Your task to perform on an android device: set the timer Image 0: 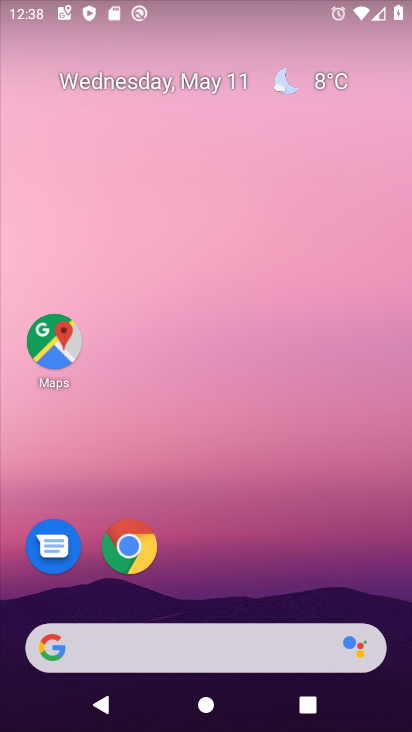
Step 0: drag from (159, 624) to (313, 249)
Your task to perform on an android device: set the timer Image 1: 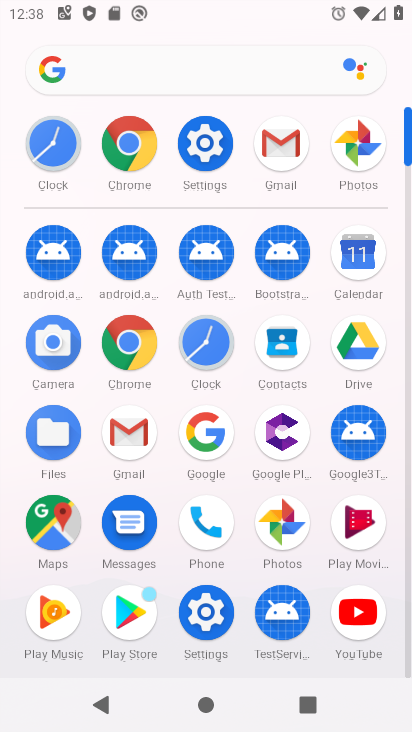
Step 1: click (62, 148)
Your task to perform on an android device: set the timer Image 2: 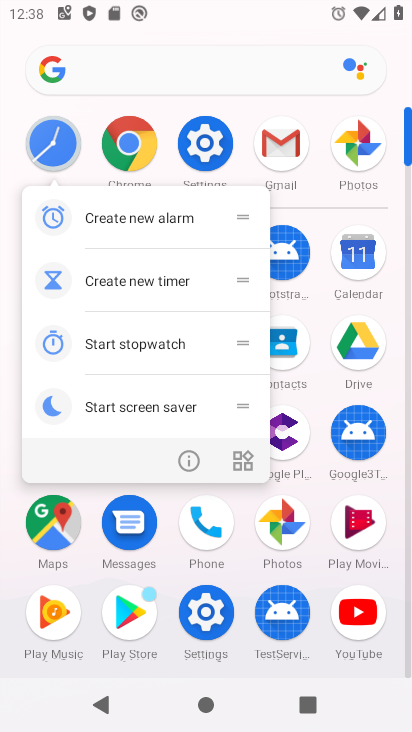
Step 2: click (64, 148)
Your task to perform on an android device: set the timer Image 3: 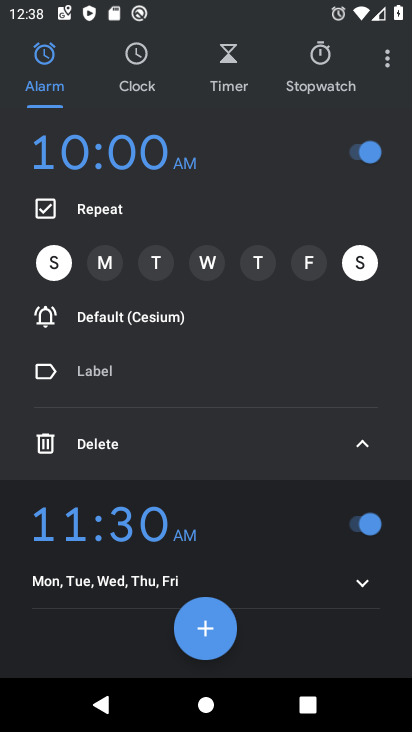
Step 3: click (240, 83)
Your task to perform on an android device: set the timer Image 4: 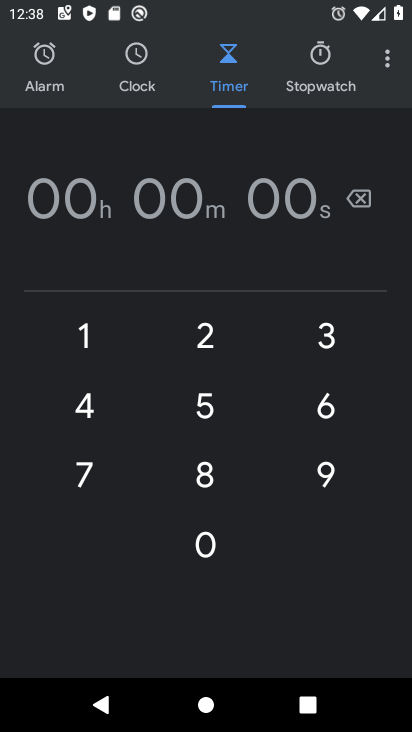
Step 4: click (93, 403)
Your task to perform on an android device: set the timer Image 5: 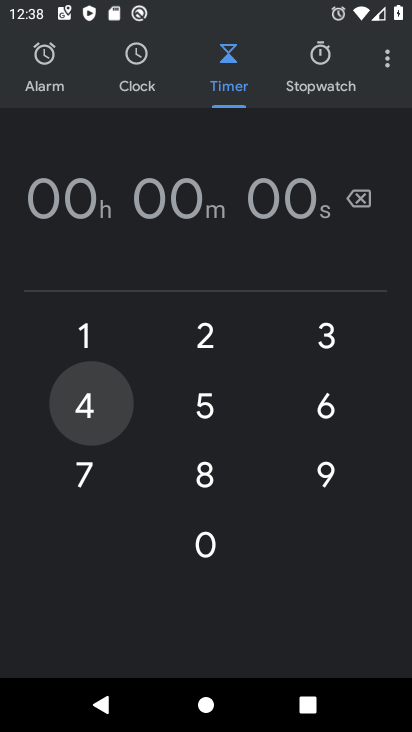
Step 5: click (95, 402)
Your task to perform on an android device: set the timer Image 6: 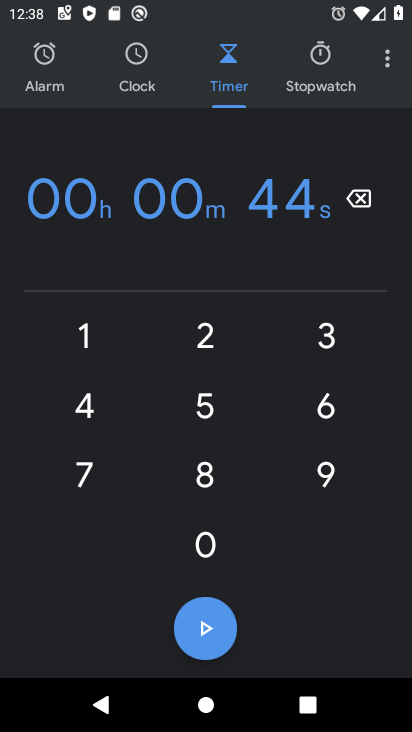
Step 6: click (217, 489)
Your task to perform on an android device: set the timer Image 7: 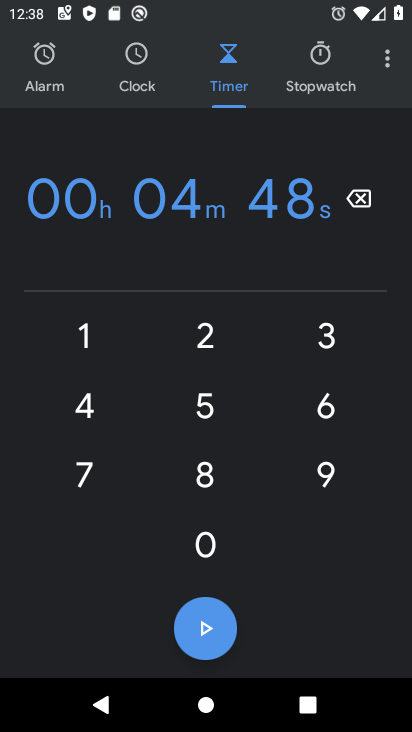
Step 7: task complete